Your task to perform on an android device: Play the last video I watched on Youtube Image 0: 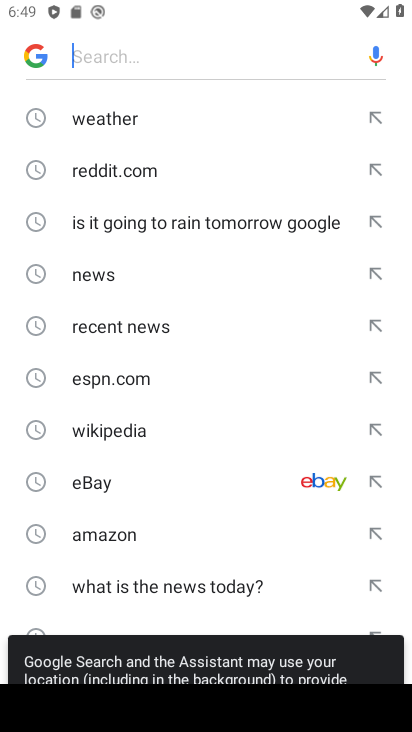
Step 0: press home button
Your task to perform on an android device: Play the last video I watched on Youtube Image 1: 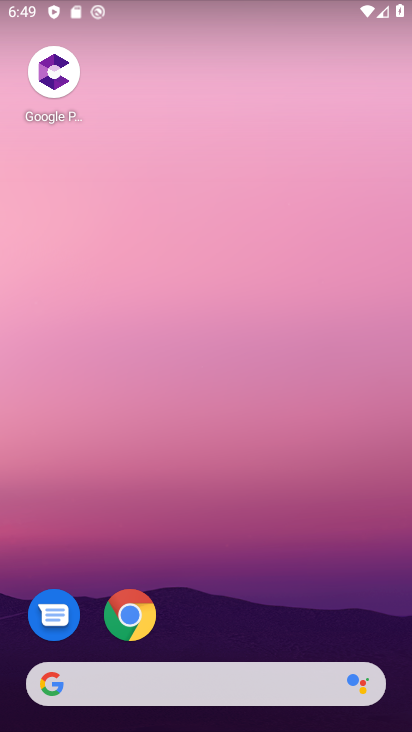
Step 1: drag from (315, 531) to (301, 101)
Your task to perform on an android device: Play the last video I watched on Youtube Image 2: 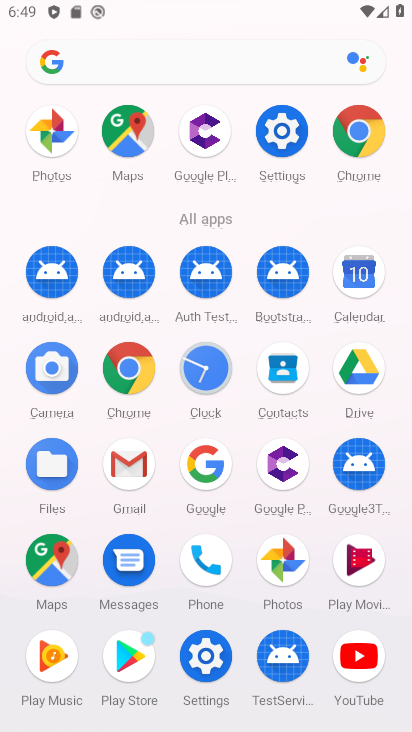
Step 2: click (356, 653)
Your task to perform on an android device: Play the last video I watched on Youtube Image 3: 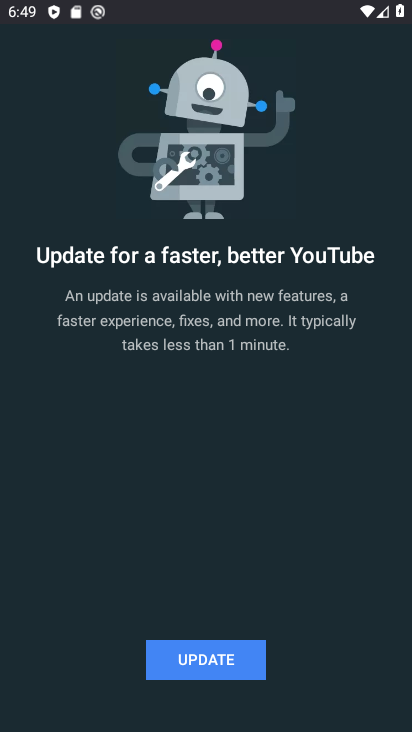
Step 3: click (248, 658)
Your task to perform on an android device: Play the last video I watched on Youtube Image 4: 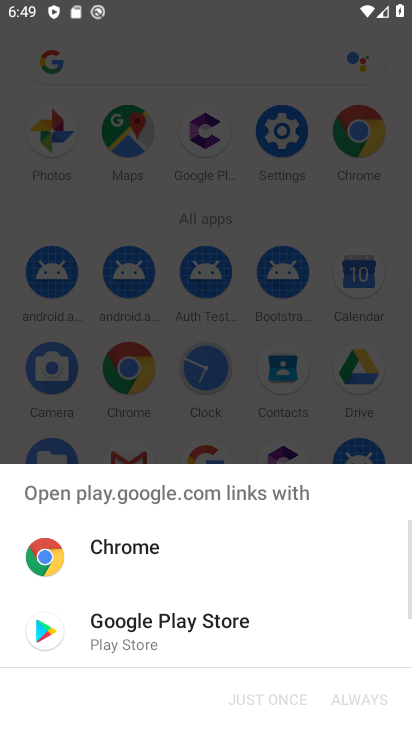
Step 4: click (138, 633)
Your task to perform on an android device: Play the last video I watched on Youtube Image 5: 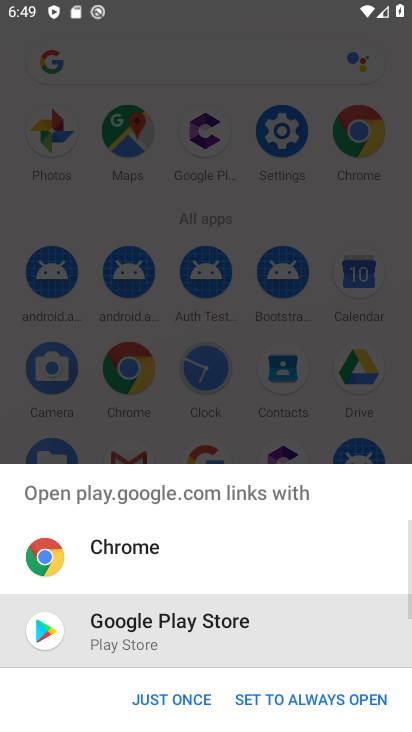
Step 5: click (144, 699)
Your task to perform on an android device: Play the last video I watched on Youtube Image 6: 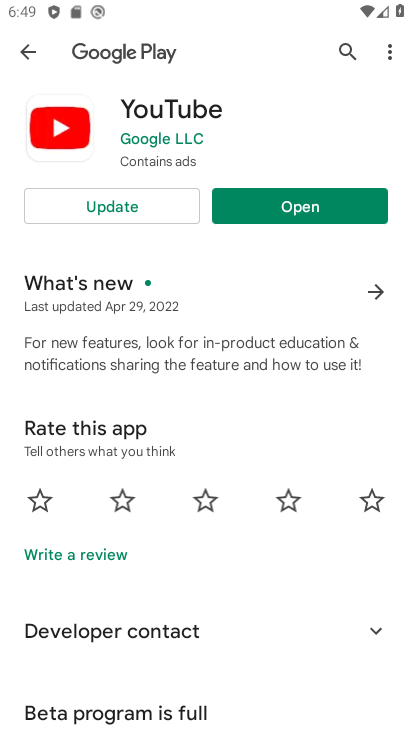
Step 6: click (109, 211)
Your task to perform on an android device: Play the last video I watched on Youtube Image 7: 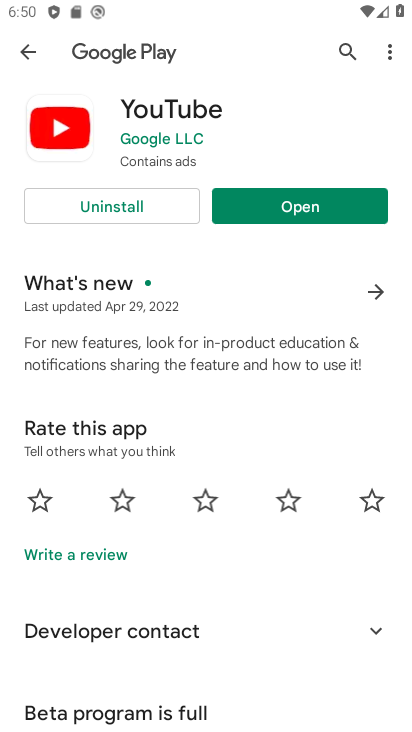
Step 7: click (306, 210)
Your task to perform on an android device: Play the last video I watched on Youtube Image 8: 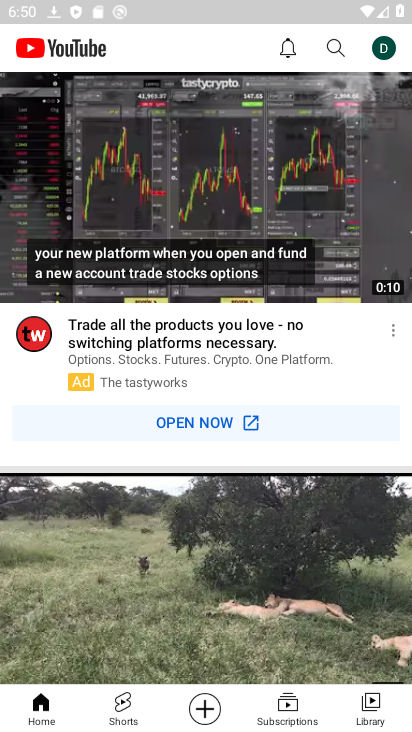
Step 8: click (359, 702)
Your task to perform on an android device: Play the last video I watched on Youtube Image 9: 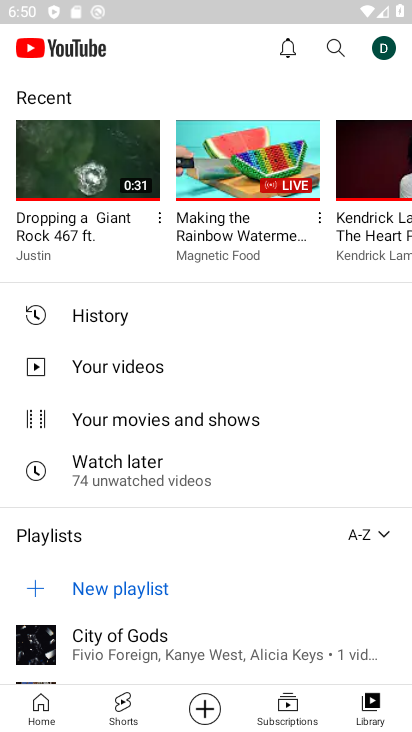
Step 9: click (111, 174)
Your task to perform on an android device: Play the last video I watched on Youtube Image 10: 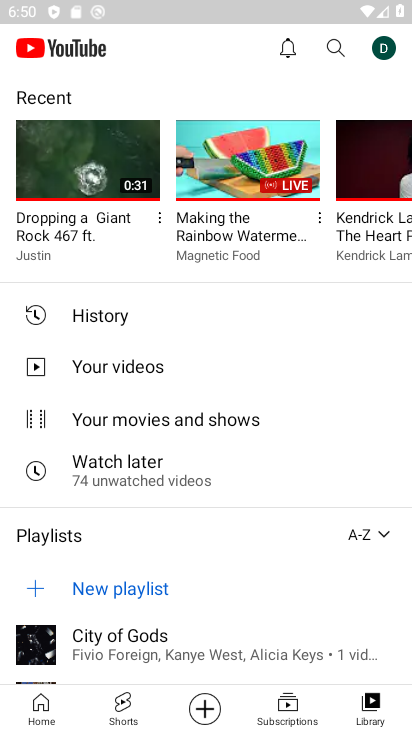
Step 10: click (76, 159)
Your task to perform on an android device: Play the last video I watched on Youtube Image 11: 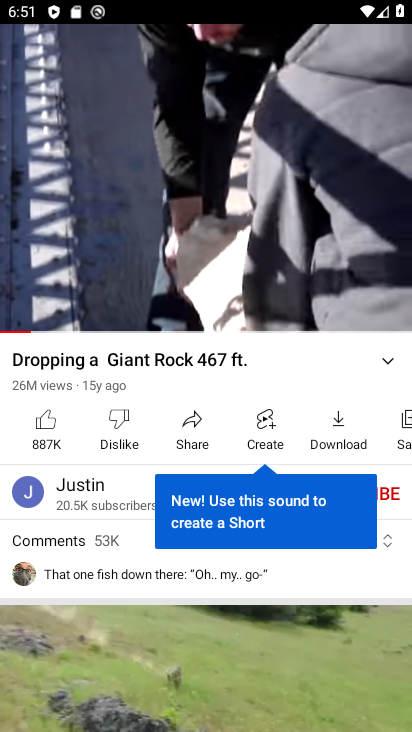
Step 11: task complete